Your task to perform on an android device: Open Yahoo.com Image 0: 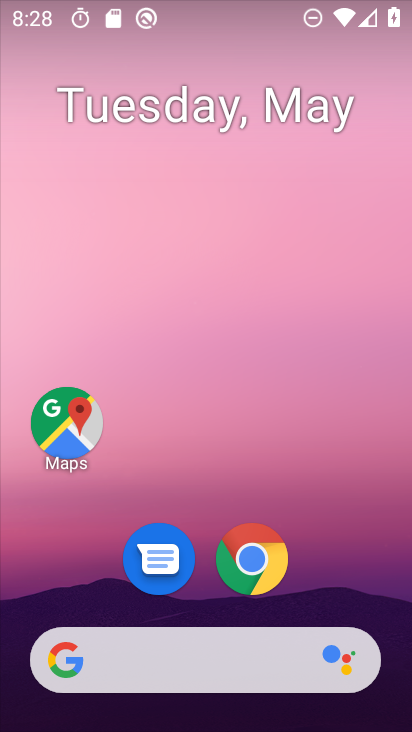
Step 0: drag from (389, 645) to (259, 66)
Your task to perform on an android device: Open Yahoo.com Image 1: 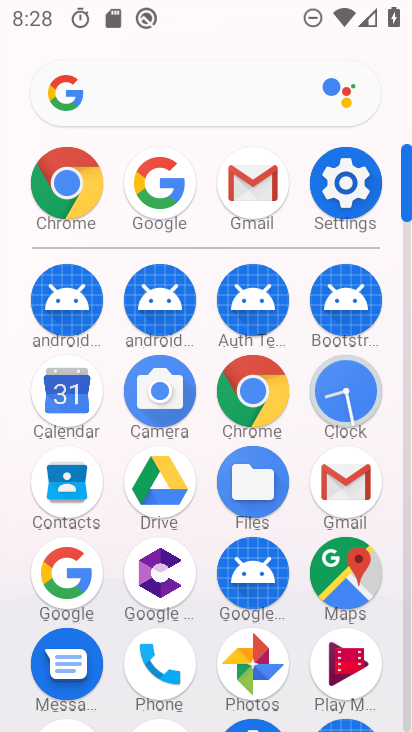
Step 1: click (61, 582)
Your task to perform on an android device: Open Yahoo.com Image 2: 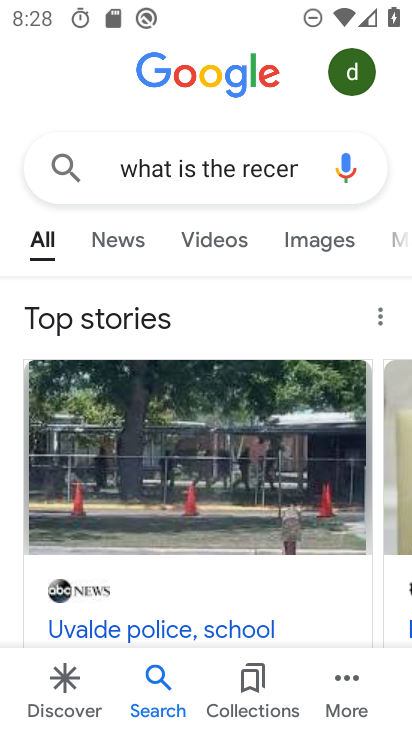
Step 2: press back button
Your task to perform on an android device: Open Yahoo.com Image 3: 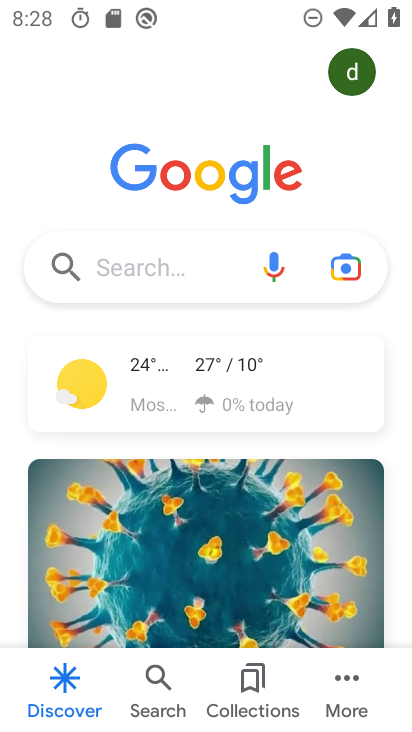
Step 3: click (132, 262)
Your task to perform on an android device: Open Yahoo.com Image 4: 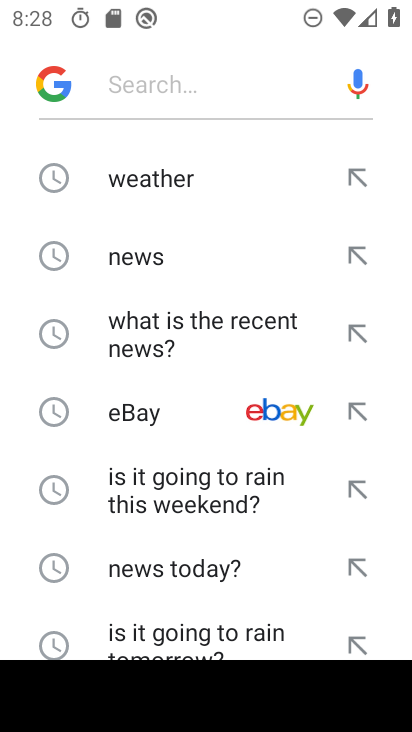
Step 4: drag from (169, 595) to (216, 122)
Your task to perform on an android device: Open Yahoo.com Image 5: 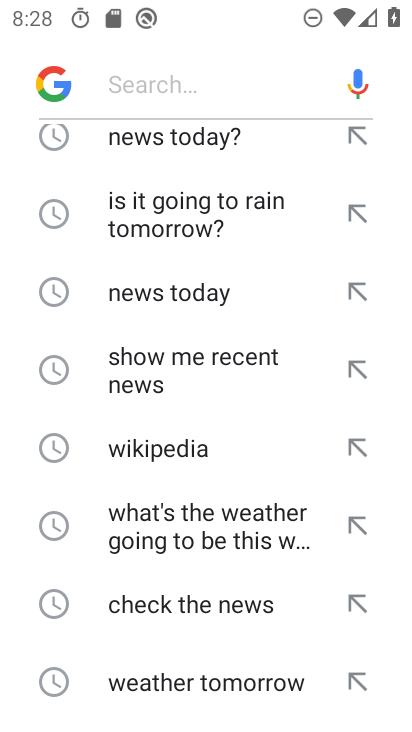
Step 5: drag from (200, 625) to (211, 140)
Your task to perform on an android device: Open Yahoo.com Image 6: 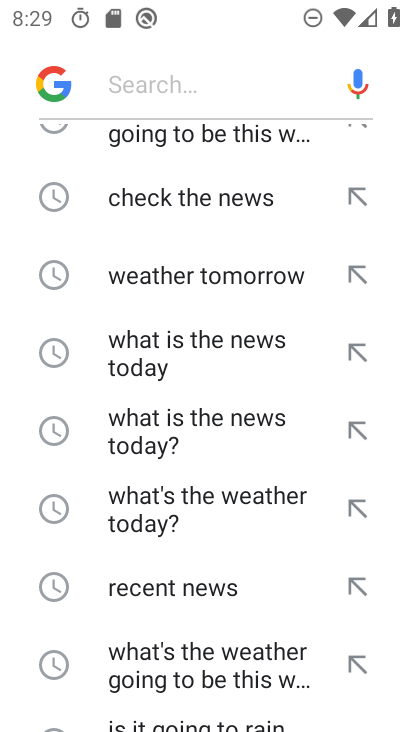
Step 6: drag from (197, 645) to (196, 171)
Your task to perform on an android device: Open Yahoo.com Image 7: 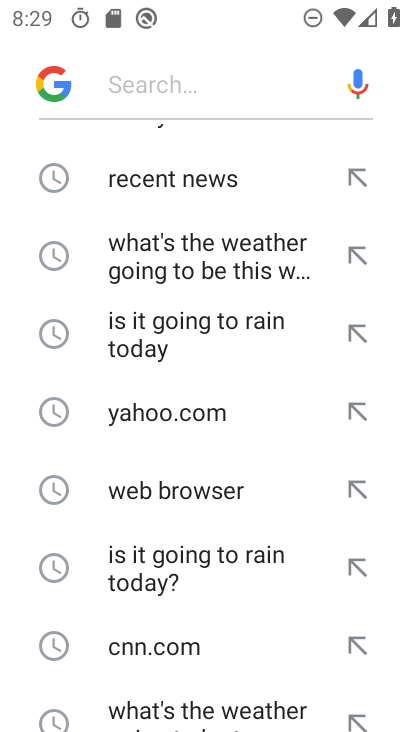
Step 7: click (164, 417)
Your task to perform on an android device: Open Yahoo.com Image 8: 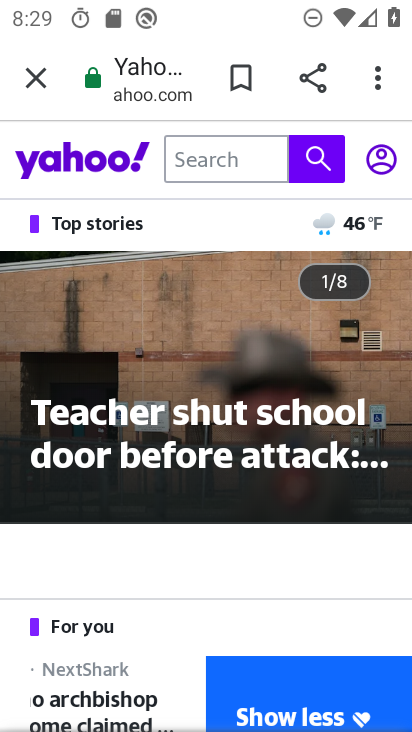
Step 8: task complete